Your task to perform on an android device: When is my next meeting? Image 0: 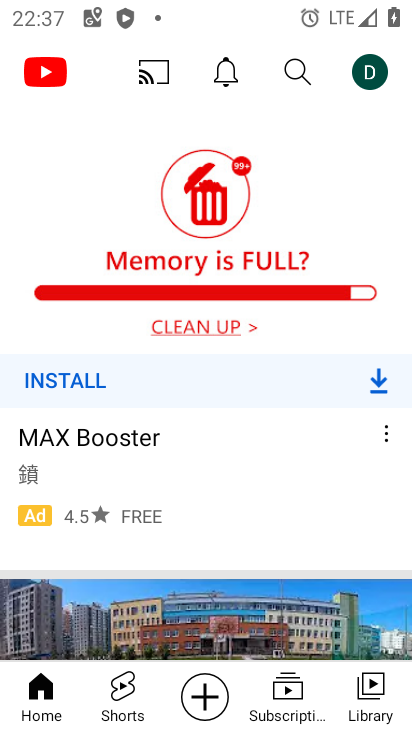
Step 0: press home button
Your task to perform on an android device: When is my next meeting? Image 1: 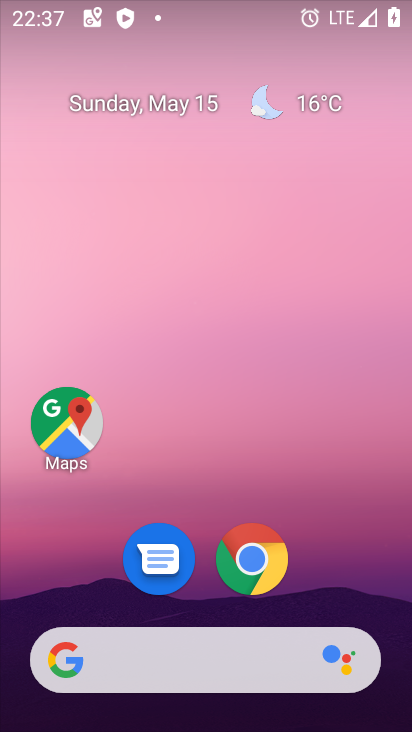
Step 1: drag from (331, 478) to (276, 7)
Your task to perform on an android device: When is my next meeting? Image 2: 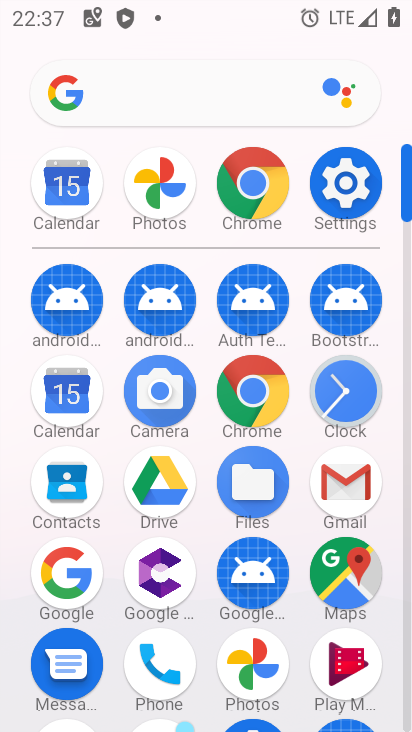
Step 2: click (59, 378)
Your task to perform on an android device: When is my next meeting? Image 3: 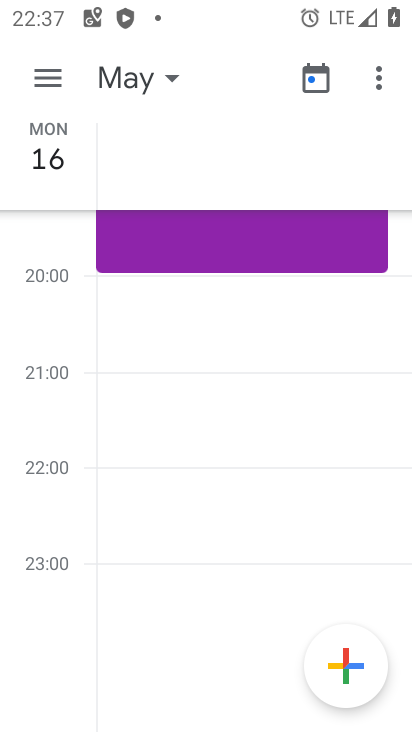
Step 3: click (165, 79)
Your task to perform on an android device: When is my next meeting? Image 4: 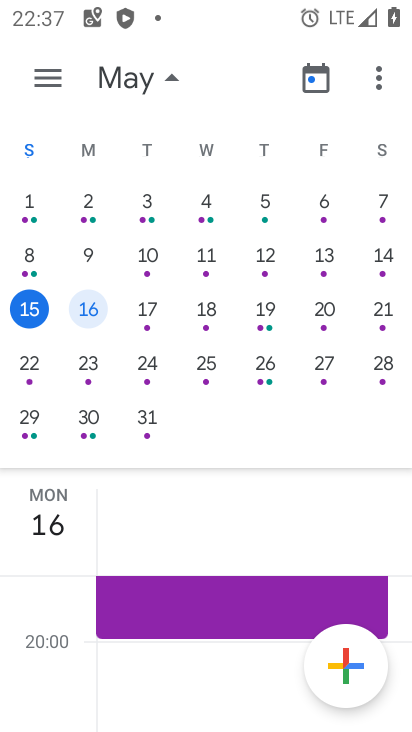
Step 4: click (29, 302)
Your task to perform on an android device: When is my next meeting? Image 5: 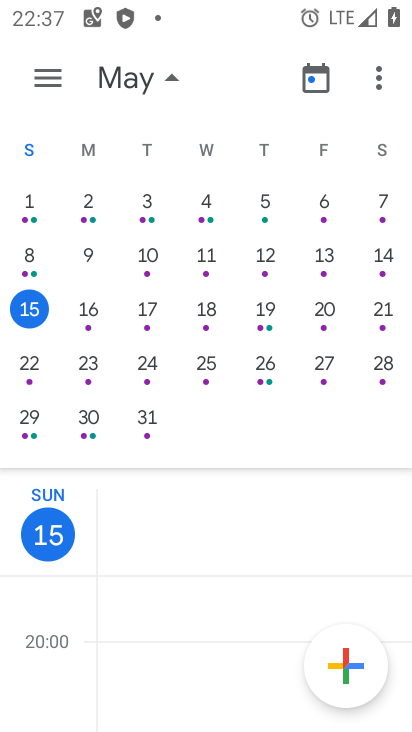
Step 5: task complete